Your task to perform on an android device: toggle javascript in the chrome app Image 0: 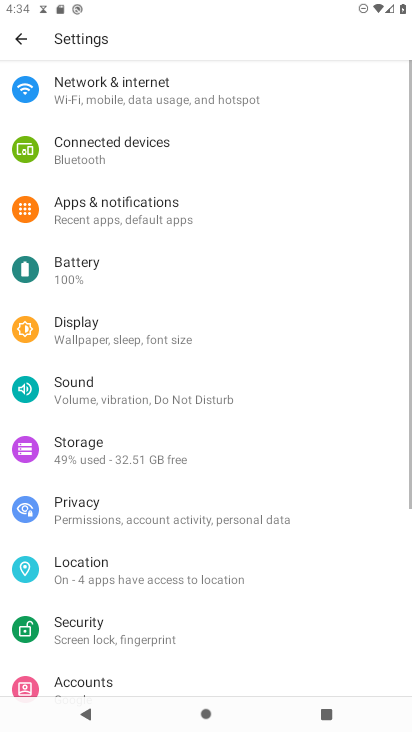
Step 0: press home button
Your task to perform on an android device: toggle javascript in the chrome app Image 1: 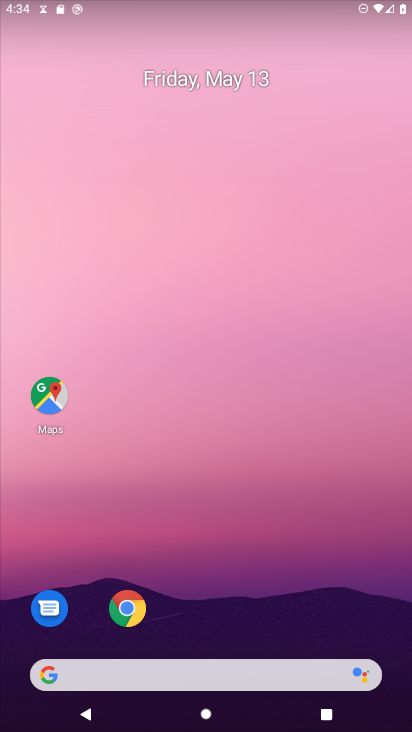
Step 1: drag from (215, 654) to (233, 4)
Your task to perform on an android device: toggle javascript in the chrome app Image 2: 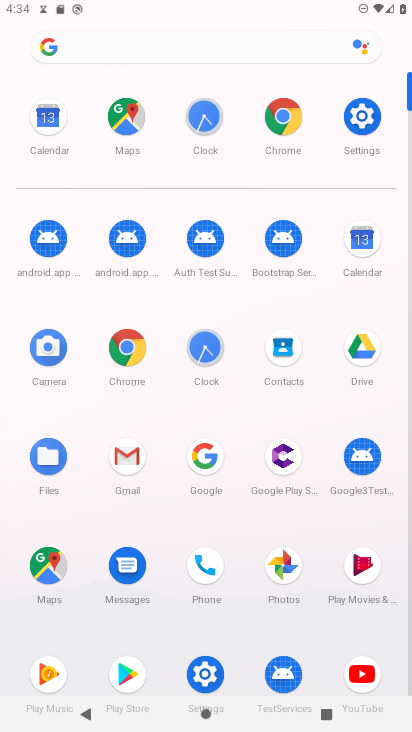
Step 2: click (121, 355)
Your task to perform on an android device: toggle javascript in the chrome app Image 3: 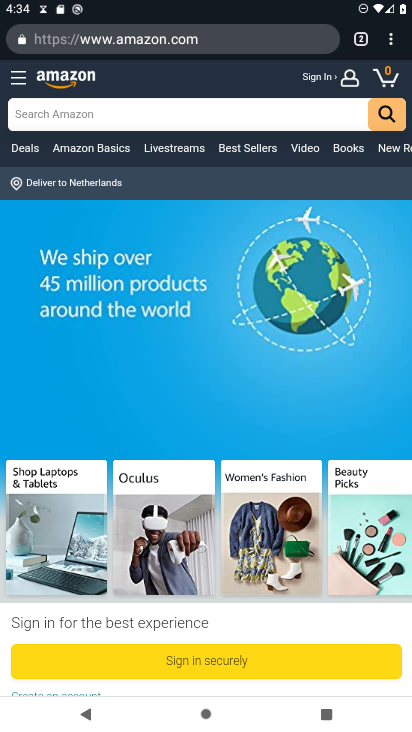
Step 3: click (389, 34)
Your task to perform on an android device: toggle javascript in the chrome app Image 4: 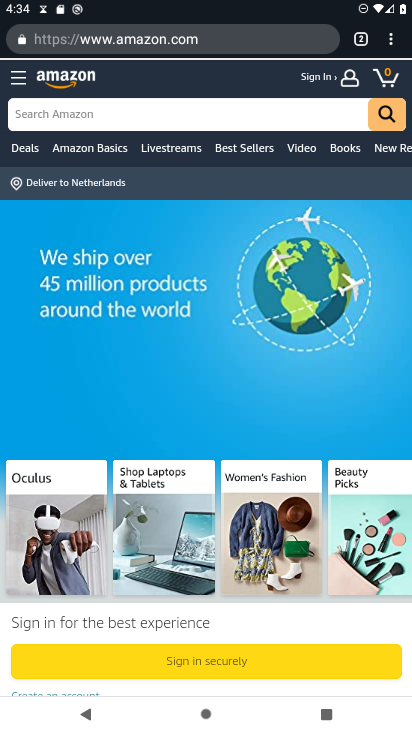
Step 4: drag from (389, 34) to (255, 473)
Your task to perform on an android device: toggle javascript in the chrome app Image 5: 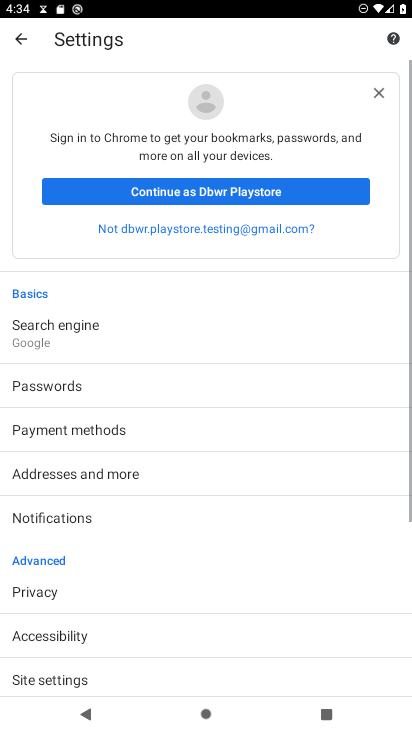
Step 5: drag from (125, 622) to (111, 210)
Your task to perform on an android device: toggle javascript in the chrome app Image 6: 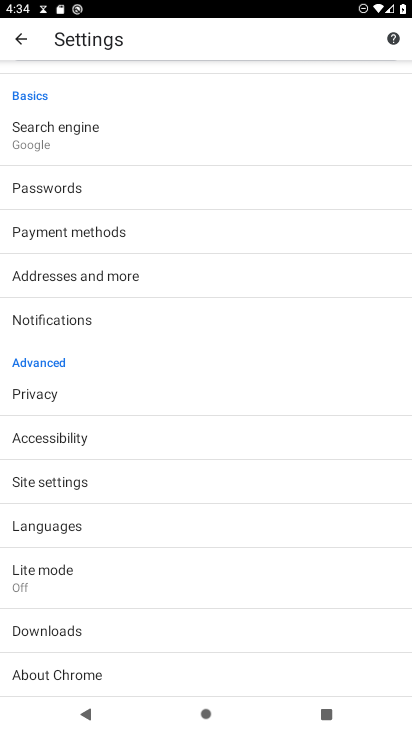
Step 6: click (92, 489)
Your task to perform on an android device: toggle javascript in the chrome app Image 7: 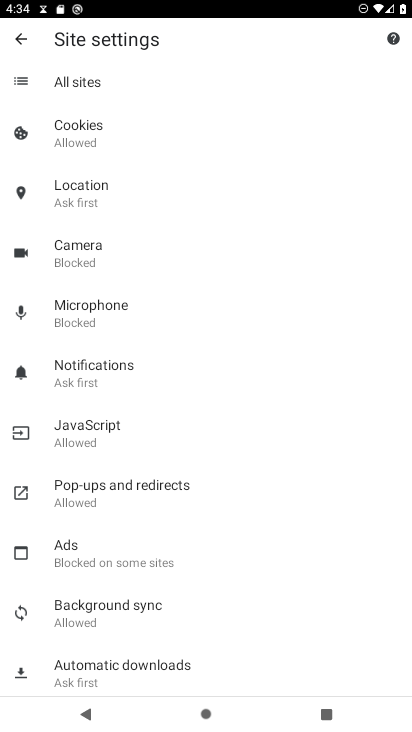
Step 7: click (124, 440)
Your task to perform on an android device: toggle javascript in the chrome app Image 8: 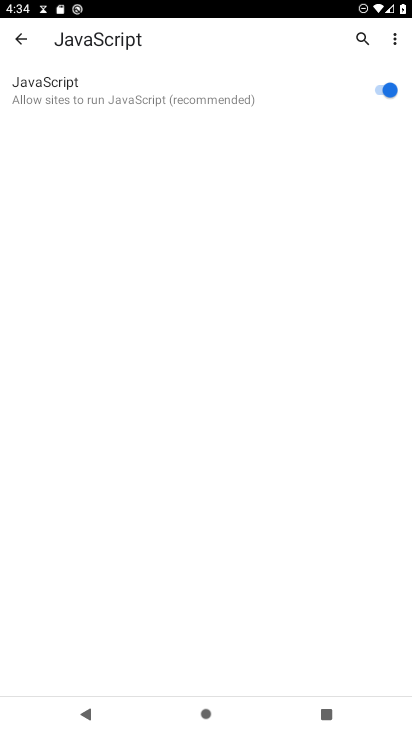
Step 8: click (378, 94)
Your task to perform on an android device: toggle javascript in the chrome app Image 9: 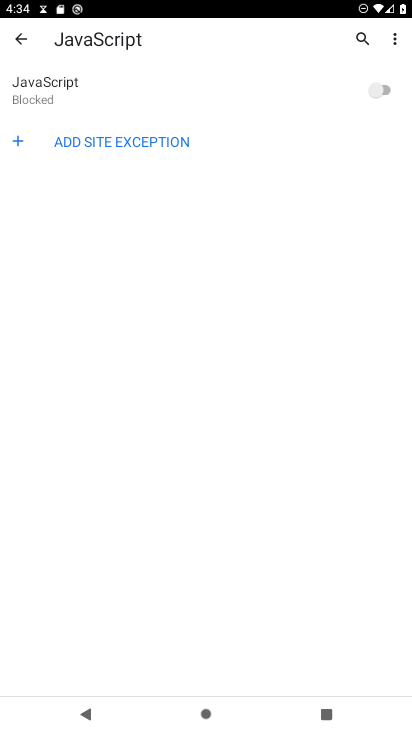
Step 9: task complete